Your task to perform on an android device: clear all cookies in the chrome app Image 0: 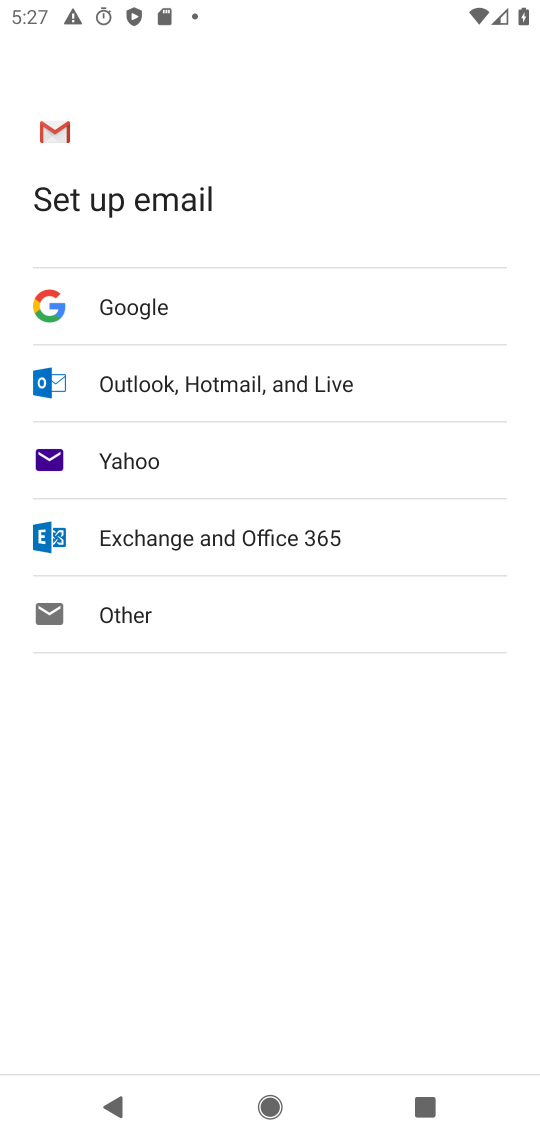
Step 0: press home button
Your task to perform on an android device: clear all cookies in the chrome app Image 1: 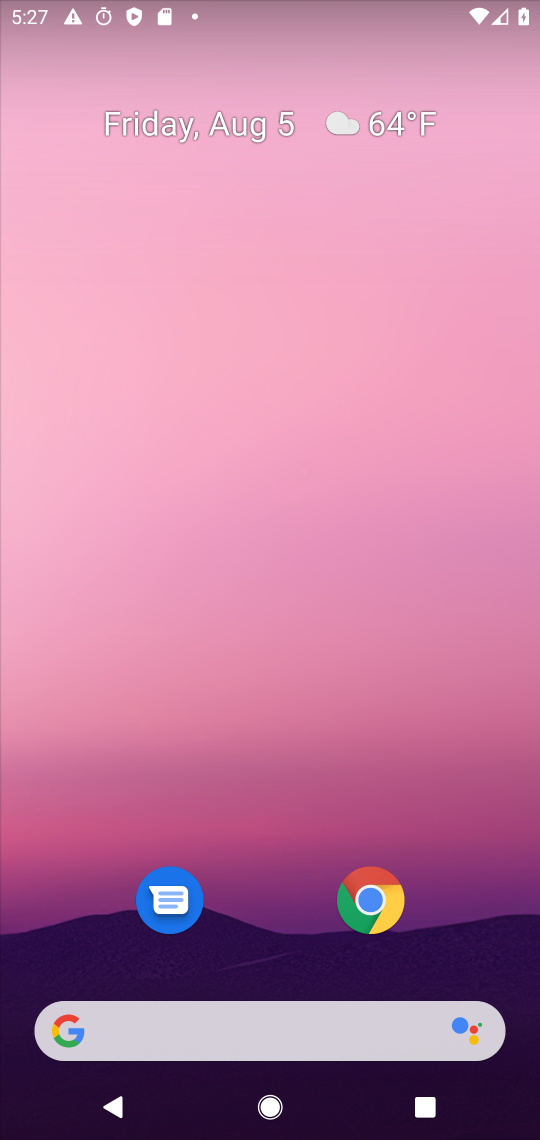
Step 1: click (373, 887)
Your task to perform on an android device: clear all cookies in the chrome app Image 2: 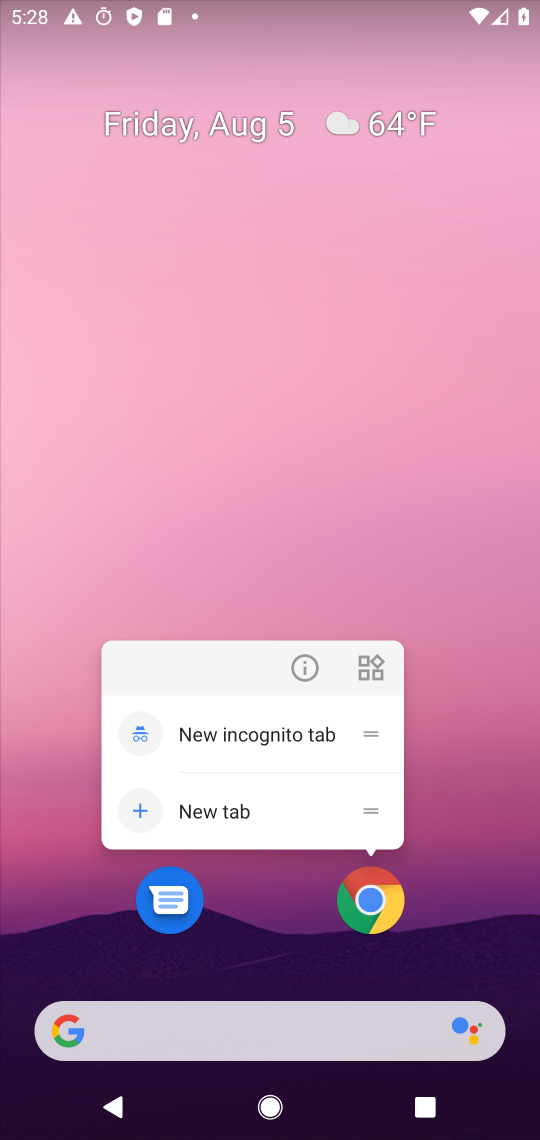
Step 2: click (373, 887)
Your task to perform on an android device: clear all cookies in the chrome app Image 3: 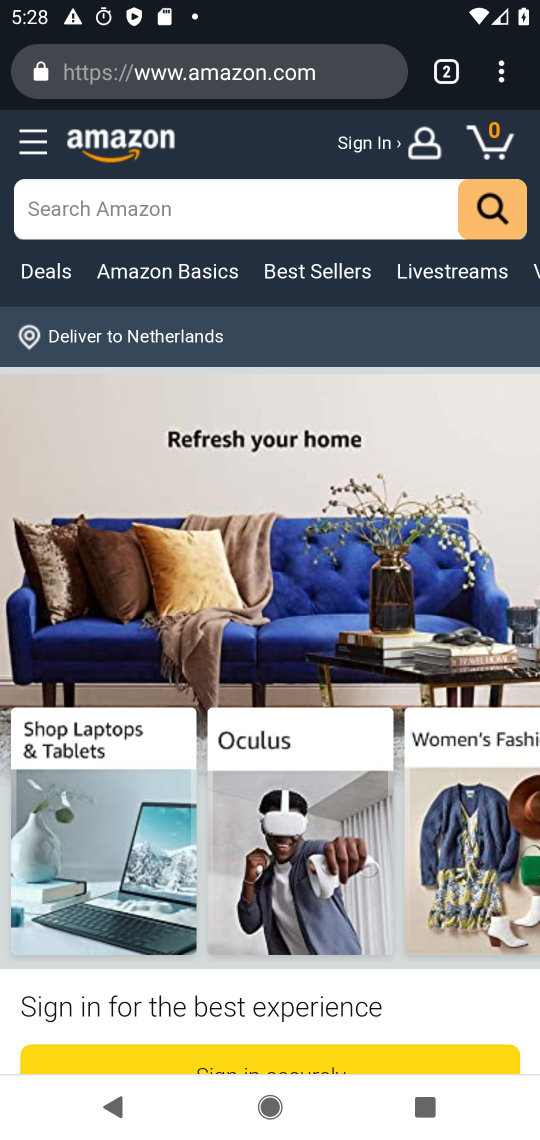
Step 3: drag from (504, 87) to (326, 868)
Your task to perform on an android device: clear all cookies in the chrome app Image 4: 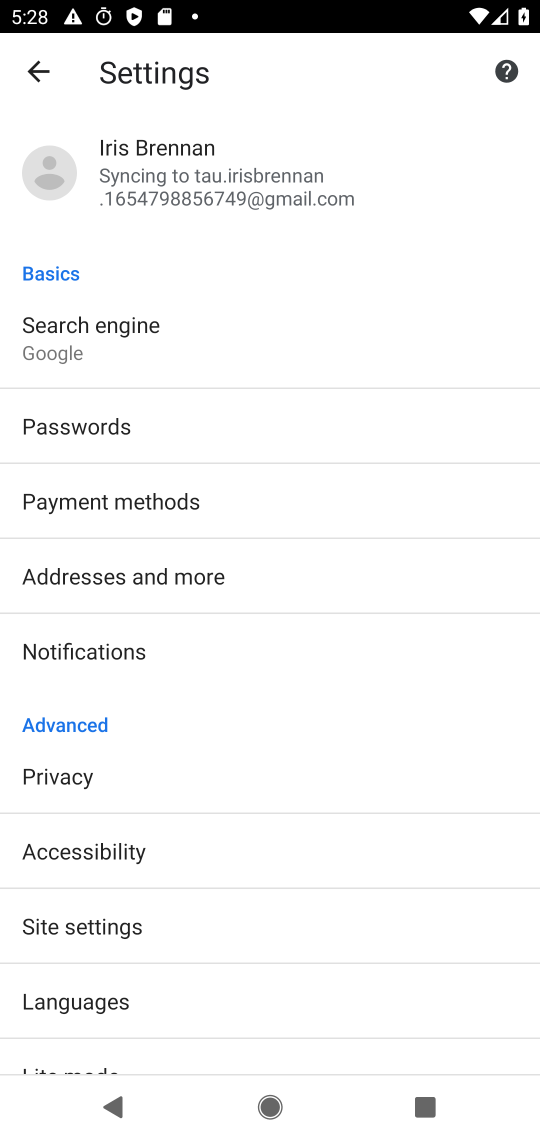
Step 4: click (98, 773)
Your task to perform on an android device: clear all cookies in the chrome app Image 5: 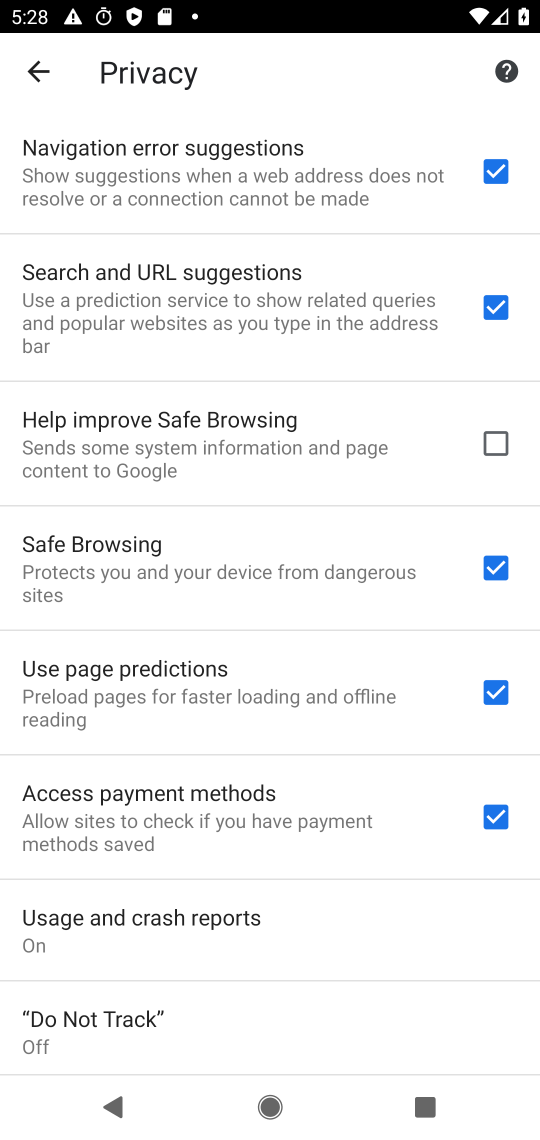
Step 5: drag from (287, 940) to (247, 370)
Your task to perform on an android device: clear all cookies in the chrome app Image 6: 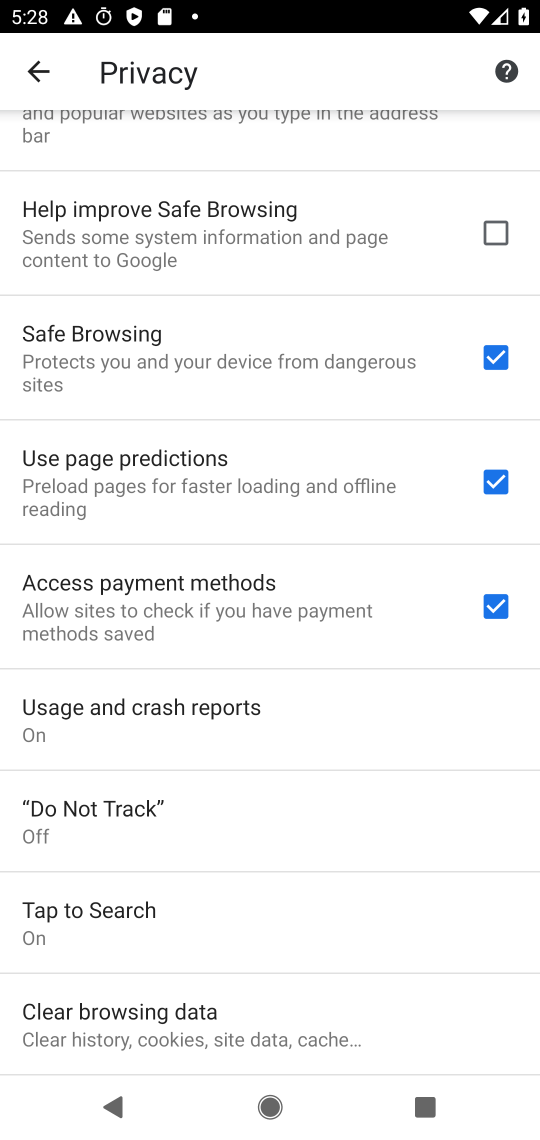
Step 6: click (277, 1037)
Your task to perform on an android device: clear all cookies in the chrome app Image 7: 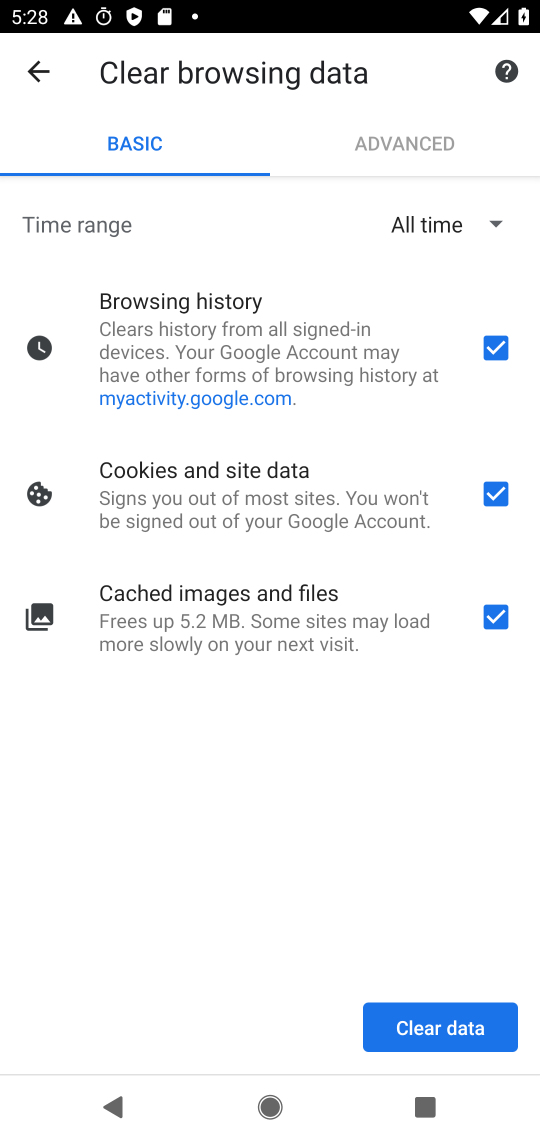
Step 7: click (486, 333)
Your task to perform on an android device: clear all cookies in the chrome app Image 8: 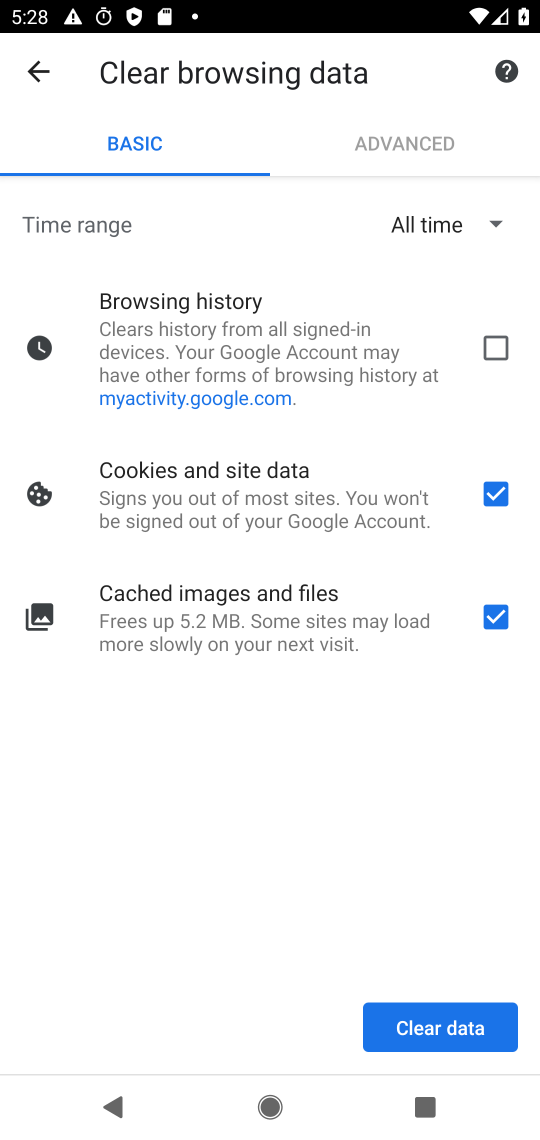
Step 8: click (504, 628)
Your task to perform on an android device: clear all cookies in the chrome app Image 9: 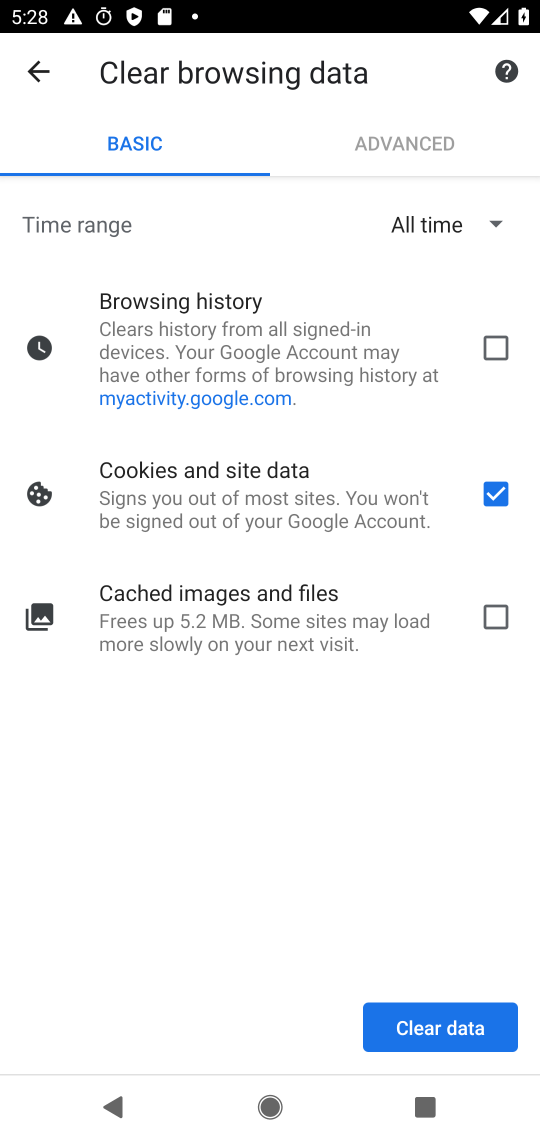
Step 9: click (463, 1025)
Your task to perform on an android device: clear all cookies in the chrome app Image 10: 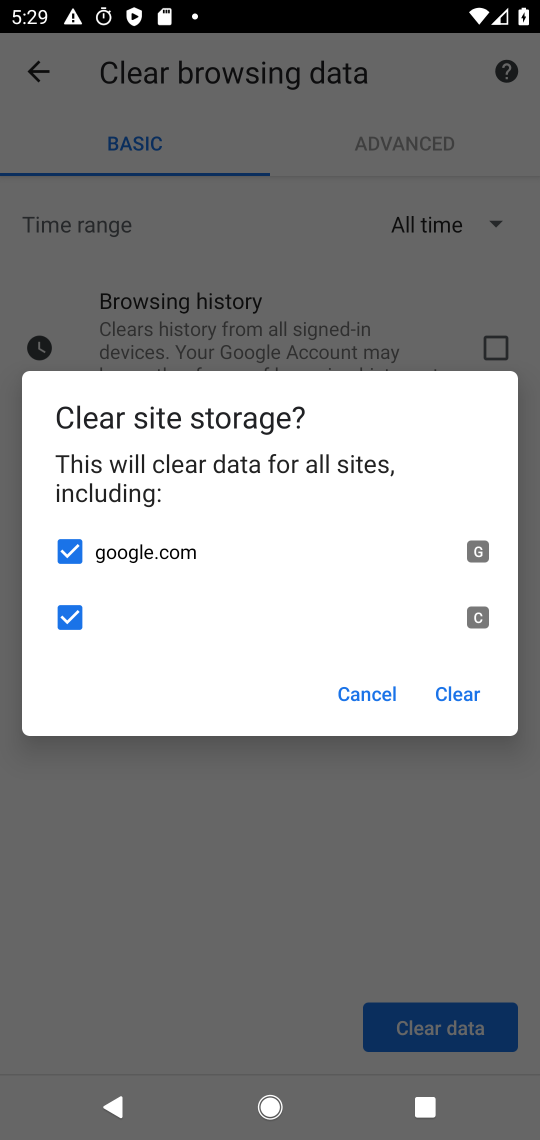
Step 10: click (454, 694)
Your task to perform on an android device: clear all cookies in the chrome app Image 11: 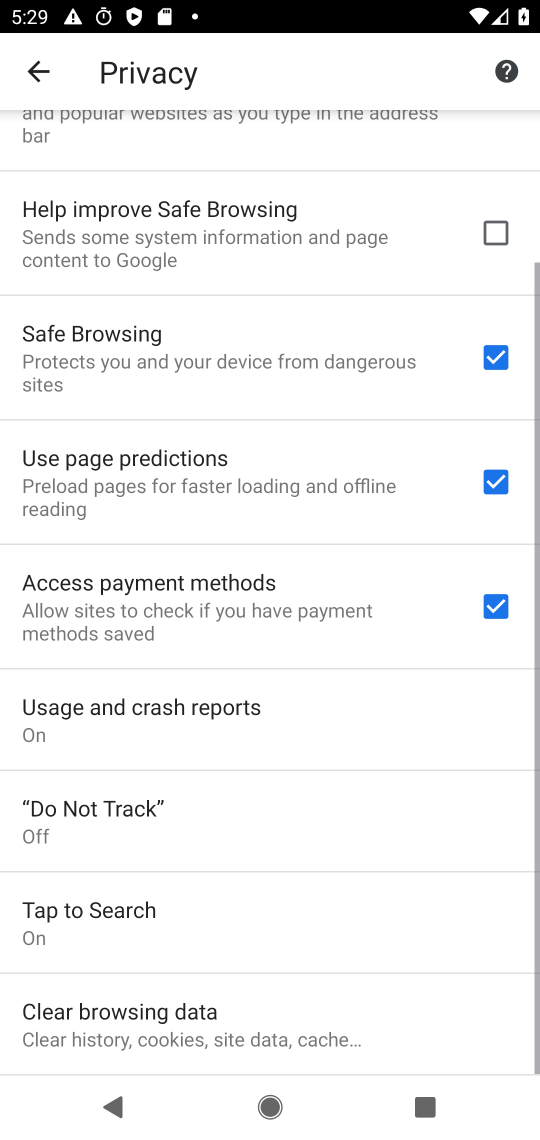
Step 11: task complete